Your task to perform on an android device: Is it going to rain this weekend? Image 0: 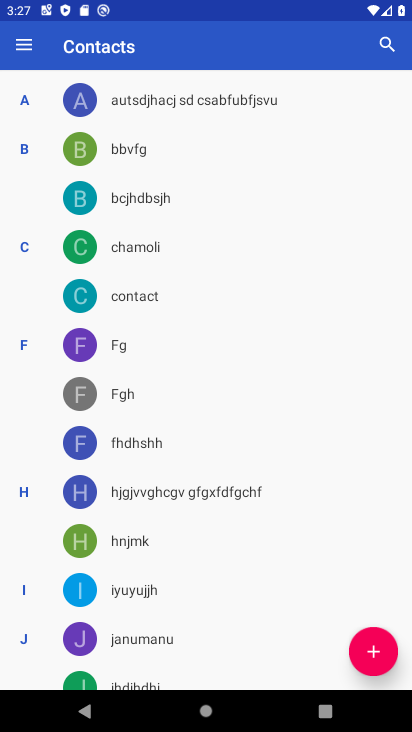
Step 0: press home button
Your task to perform on an android device: Is it going to rain this weekend? Image 1: 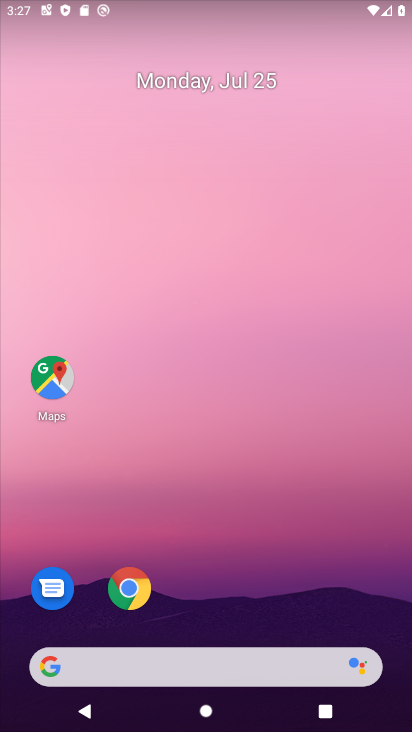
Step 1: click (124, 589)
Your task to perform on an android device: Is it going to rain this weekend? Image 2: 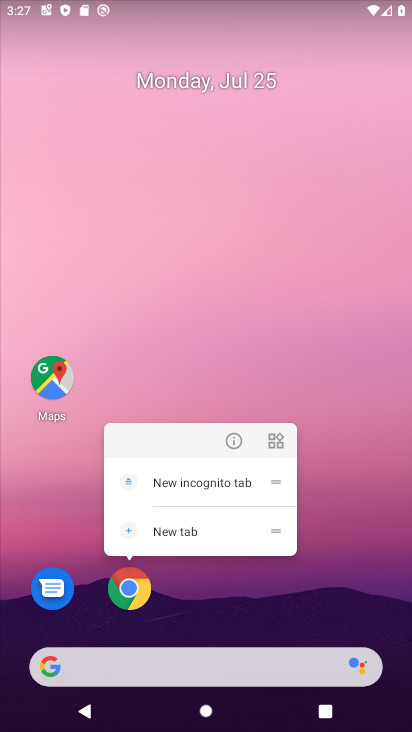
Step 2: click (134, 586)
Your task to perform on an android device: Is it going to rain this weekend? Image 3: 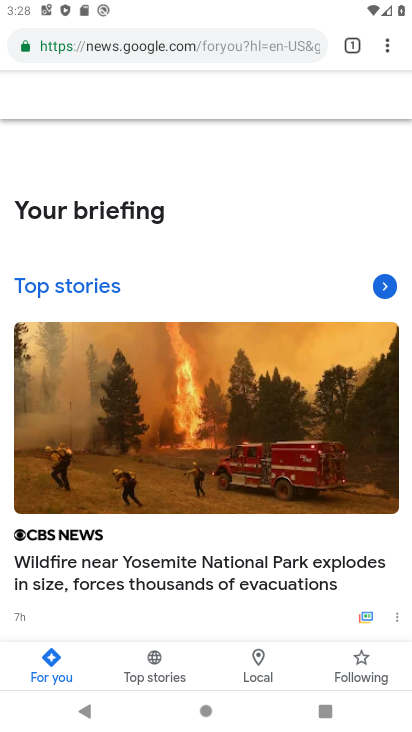
Step 3: click (204, 43)
Your task to perform on an android device: Is it going to rain this weekend? Image 4: 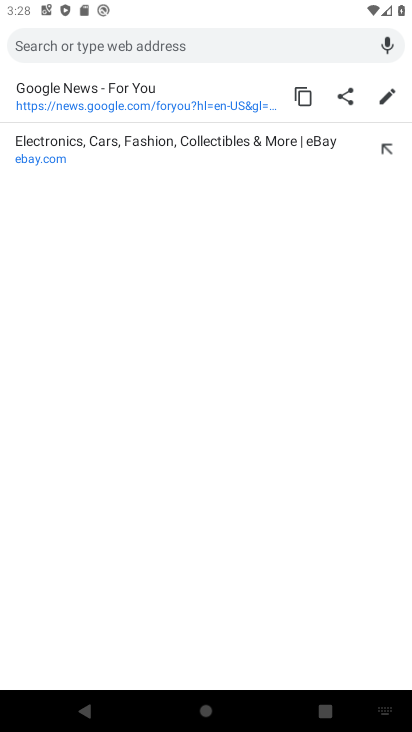
Step 4: type "weather"
Your task to perform on an android device: Is it going to rain this weekend? Image 5: 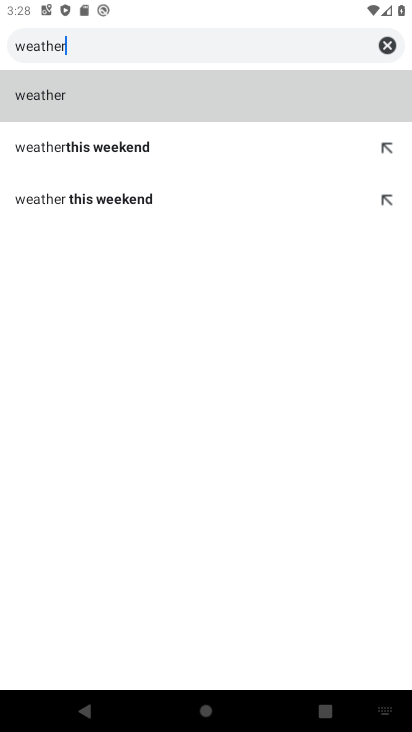
Step 5: click (43, 77)
Your task to perform on an android device: Is it going to rain this weekend? Image 6: 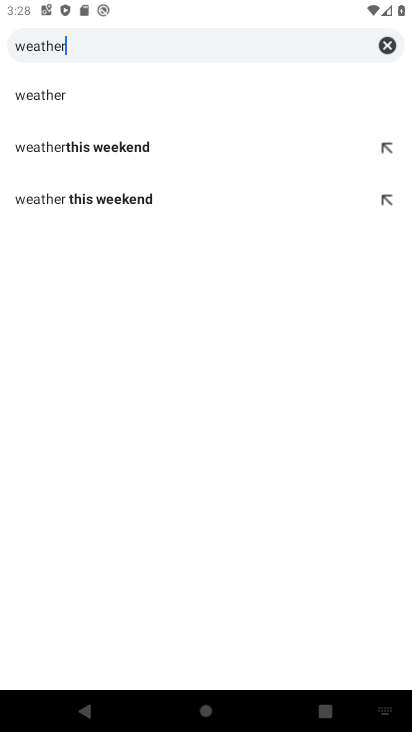
Step 6: click (45, 104)
Your task to perform on an android device: Is it going to rain this weekend? Image 7: 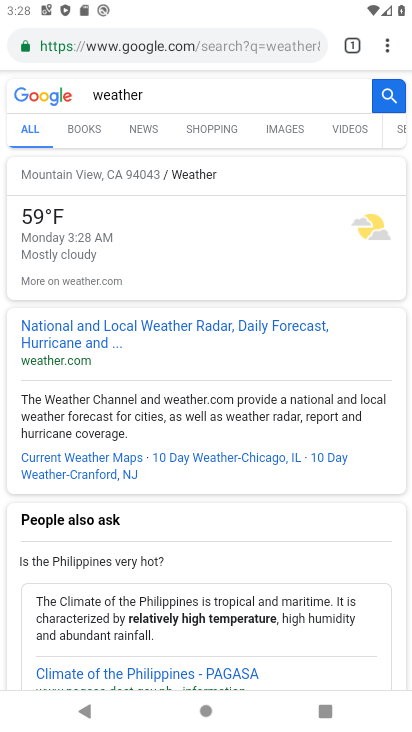
Step 7: click (234, 90)
Your task to perform on an android device: Is it going to rain this weekend? Image 8: 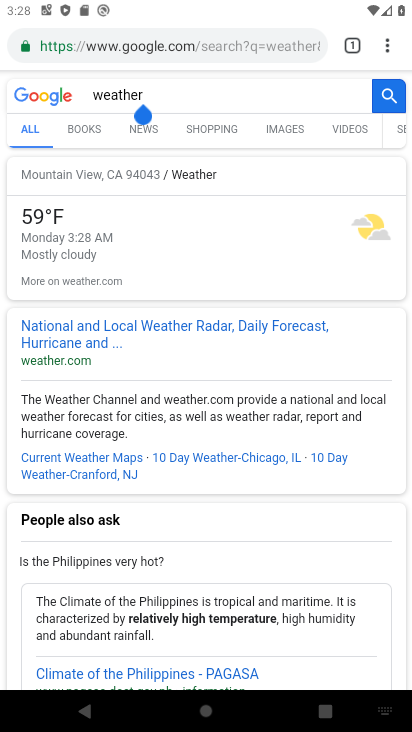
Step 8: type " weekend"
Your task to perform on an android device: Is it going to rain this weekend? Image 9: 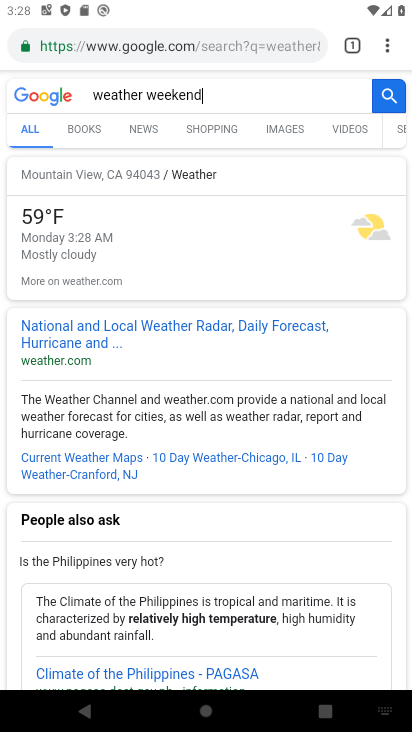
Step 9: click (382, 103)
Your task to perform on an android device: Is it going to rain this weekend? Image 10: 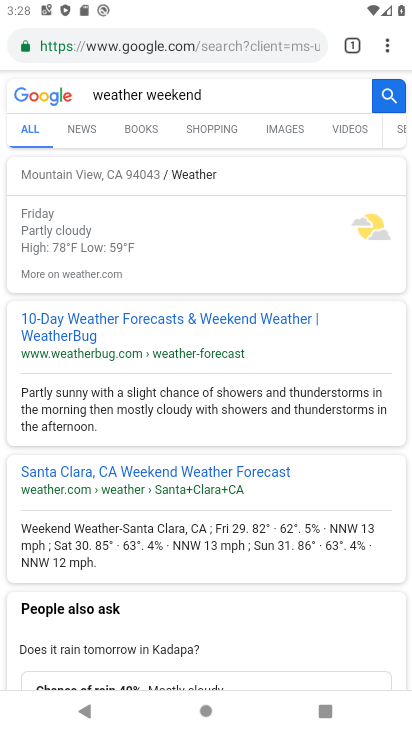
Step 10: task complete